Your task to perform on an android device: toggle wifi Image 0: 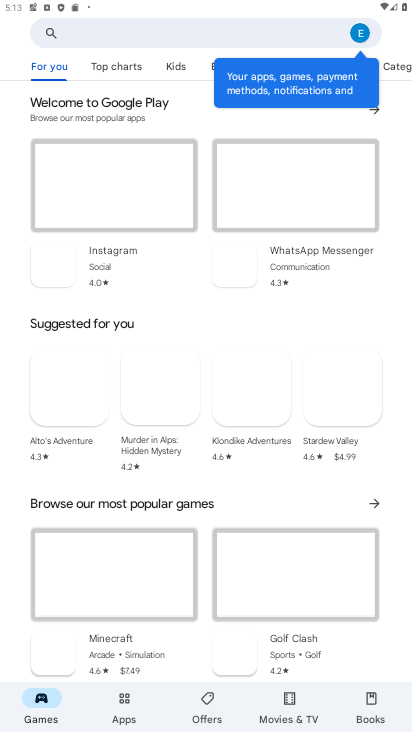
Step 0: drag from (198, 6) to (269, 600)
Your task to perform on an android device: toggle wifi Image 1: 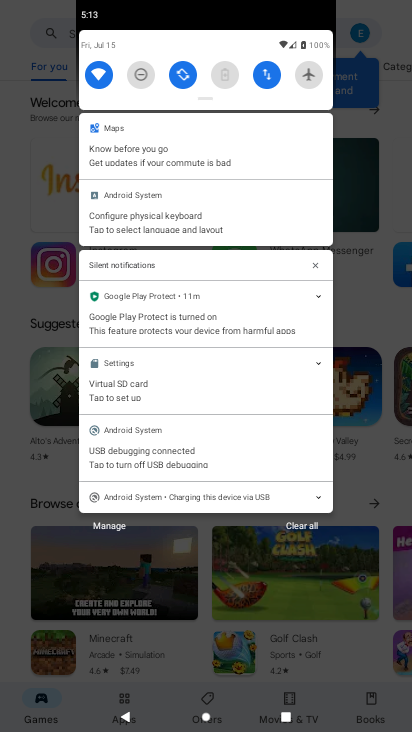
Step 1: click (106, 82)
Your task to perform on an android device: toggle wifi Image 2: 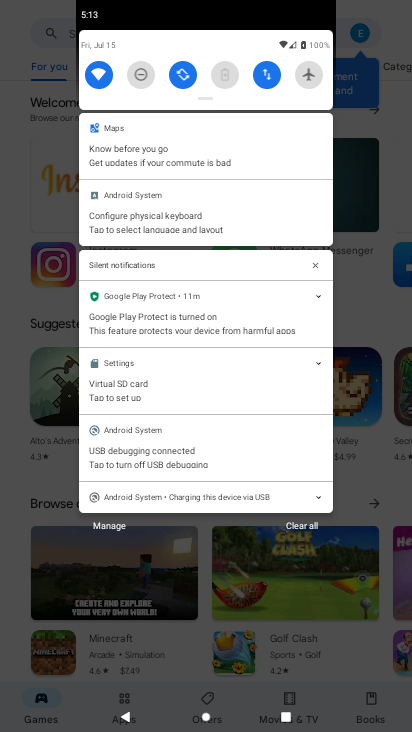
Step 2: click (106, 82)
Your task to perform on an android device: toggle wifi Image 3: 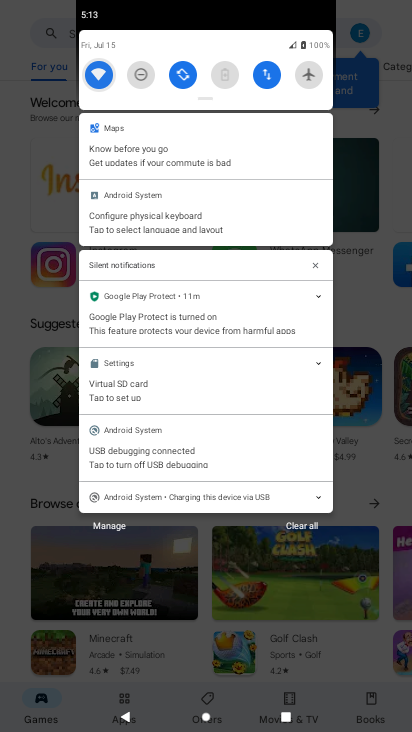
Step 3: click (106, 82)
Your task to perform on an android device: toggle wifi Image 4: 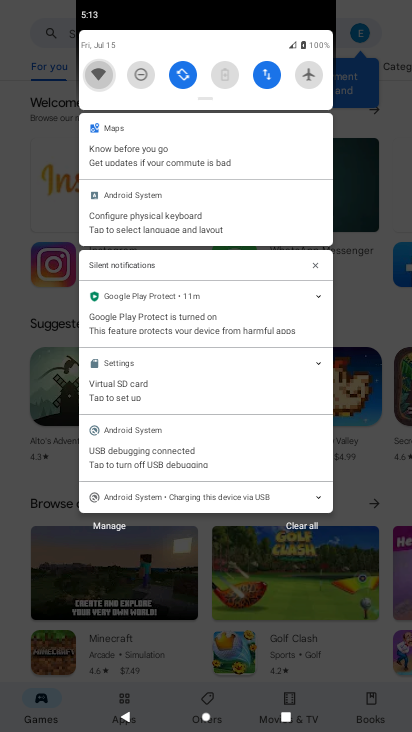
Step 4: click (106, 82)
Your task to perform on an android device: toggle wifi Image 5: 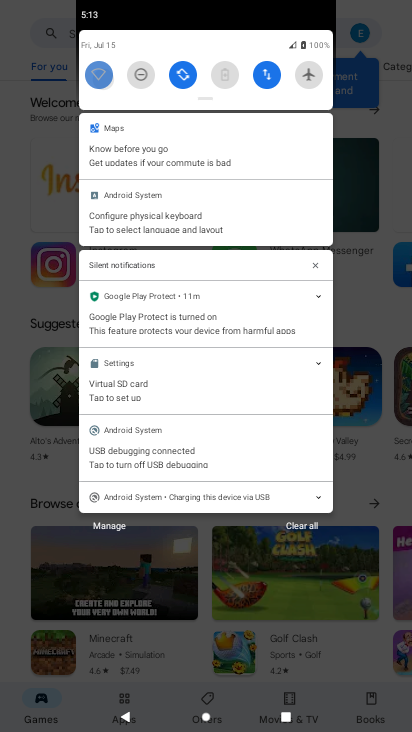
Step 5: click (106, 82)
Your task to perform on an android device: toggle wifi Image 6: 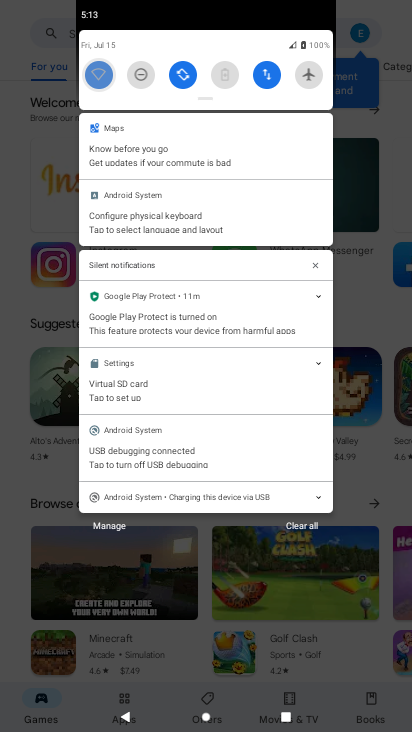
Step 6: click (106, 82)
Your task to perform on an android device: toggle wifi Image 7: 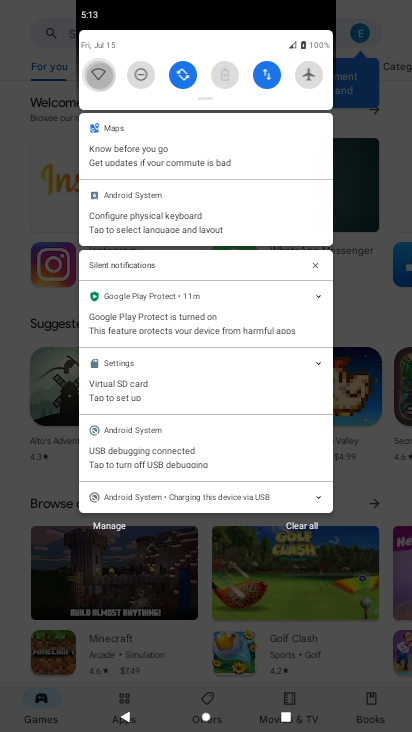
Step 7: click (106, 82)
Your task to perform on an android device: toggle wifi Image 8: 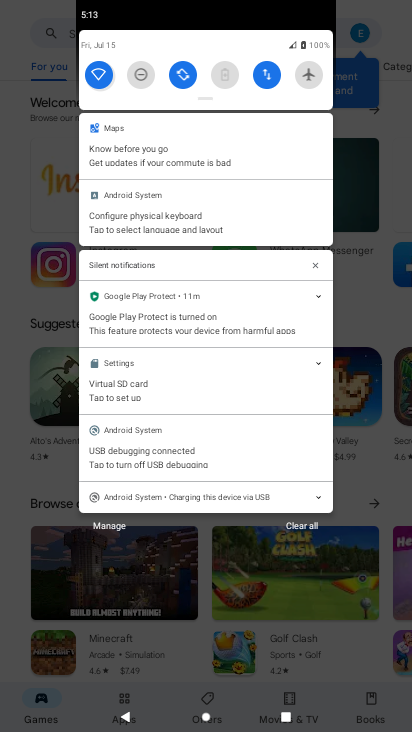
Step 8: click (106, 82)
Your task to perform on an android device: toggle wifi Image 9: 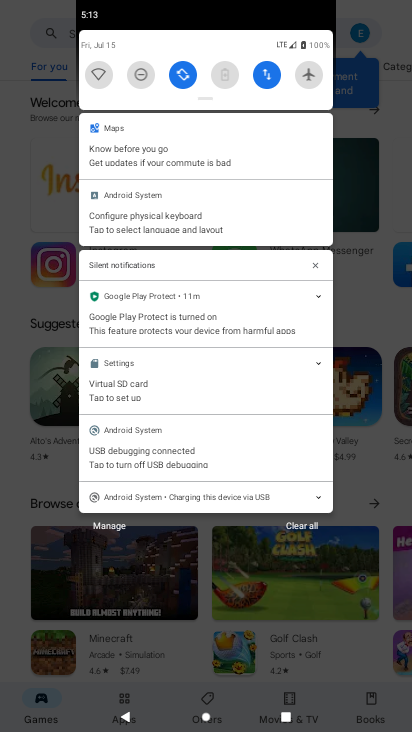
Step 9: click (106, 82)
Your task to perform on an android device: toggle wifi Image 10: 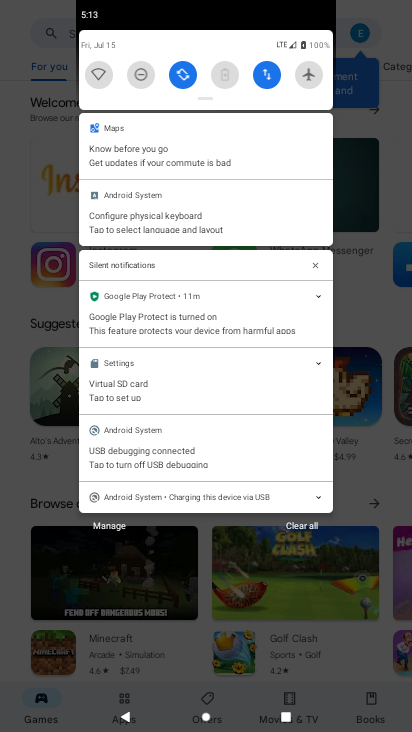
Step 10: click (106, 82)
Your task to perform on an android device: toggle wifi Image 11: 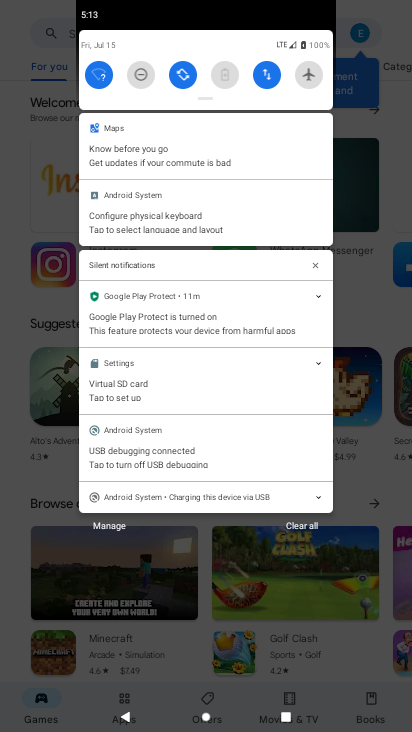
Step 11: task complete